Your task to perform on an android device: Open Youtube and go to "Your channel" Image 0: 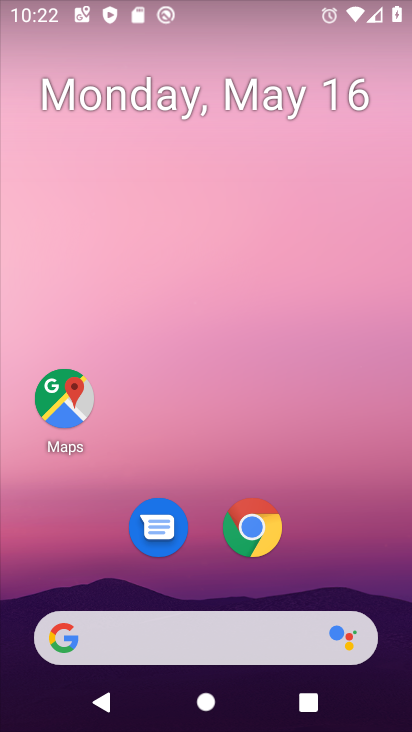
Step 0: drag from (381, 615) to (400, 3)
Your task to perform on an android device: Open Youtube and go to "Your channel" Image 1: 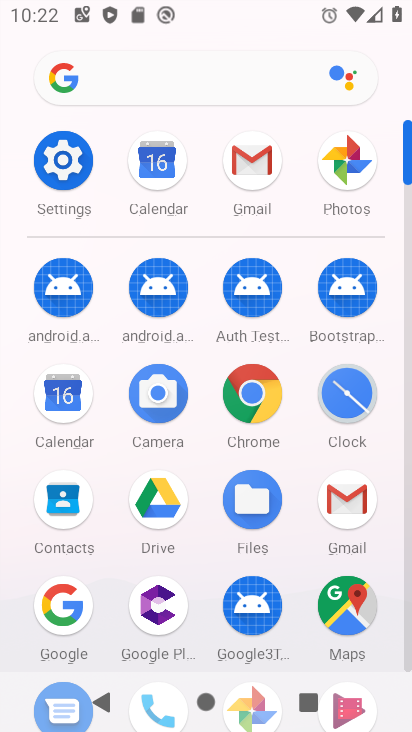
Step 1: click (405, 524)
Your task to perform on an android device: Open Youtube and go to "Your channel" Image 2: 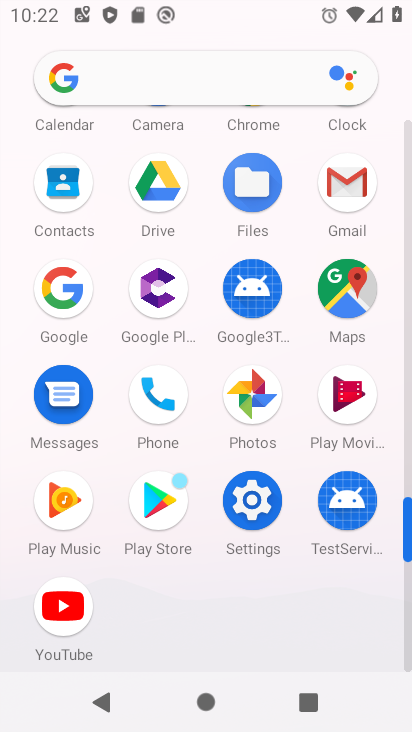
Step 2: click (60, 599)
Your task to perform on an android device: Open Youtube and go to "Your channel" Image 3: 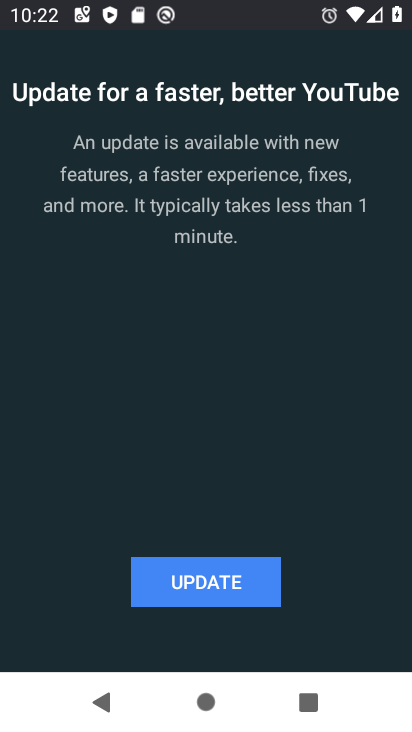
Step 3: click (181, 579)
Your task to perform on an android device: Open Youtube and go to "Your channel" Image 4: 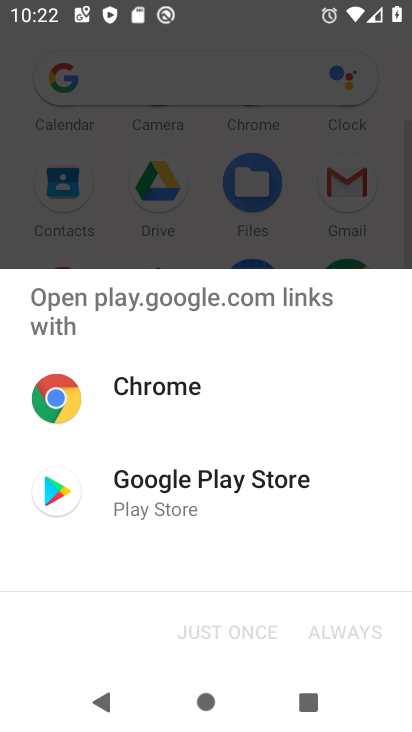
Step 4: click (179, 494)
Your task to perform on an android device: Open Youtube and go to "Your channel" Image 5: 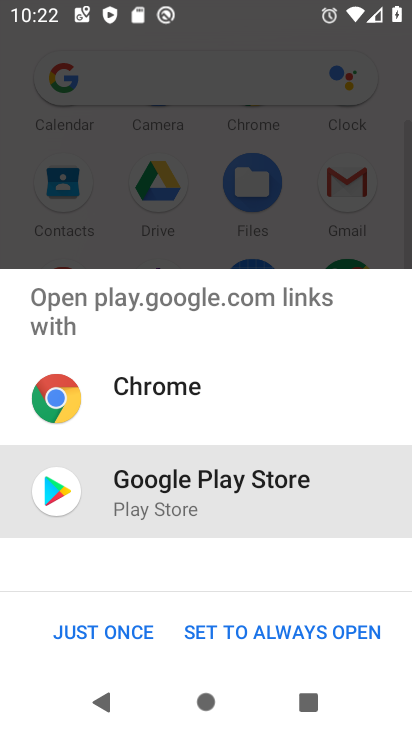
Step 5: click (89, 624)
Your task to perform on an android device: Open Youtube and go to "Your channel" Image 6: 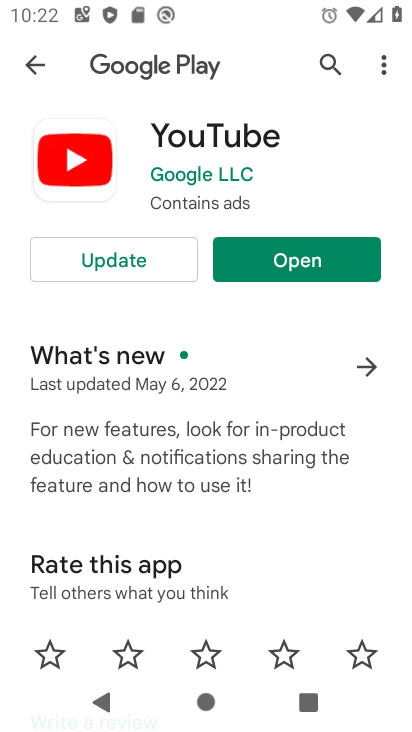
Step 6: click (119, 267)
Your task to perform on an android device: Open Youtube and go to "Your channel" Image 7: 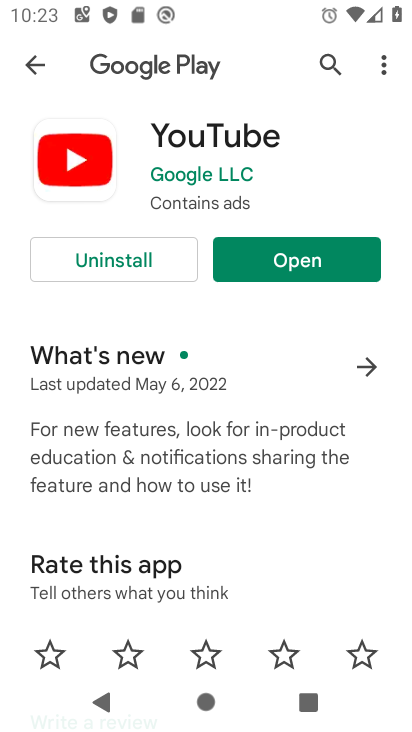
Step 7: click (293, 259)
Your task to perform on an android device: Open Youtube and go to "Your channel" Image 8: 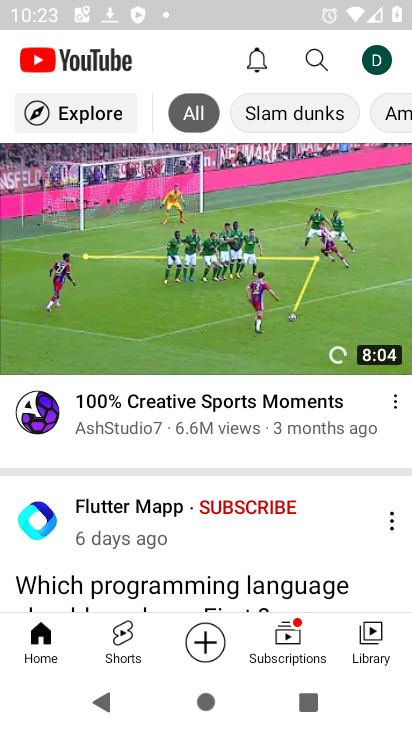
Step 8: click (379, 64)
Your task to perform on an android device: Open Youtube and go to "Your channel" Image 9: 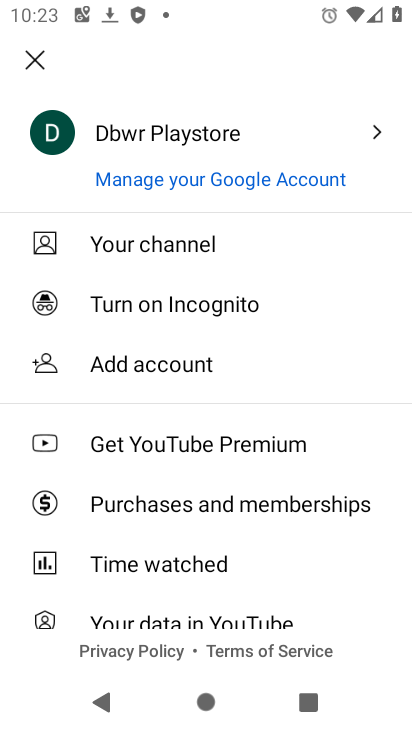
Step 9: click (118, 253)
Your task to perform on an android device: Open Youtube and go to "Your channel" Image 10: 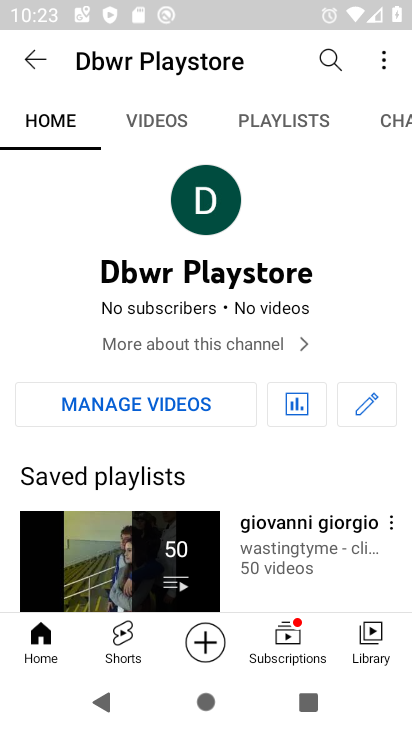
Step 10: task complete